Your task to perform on an android device: turn on bluetooth scan Image 0: 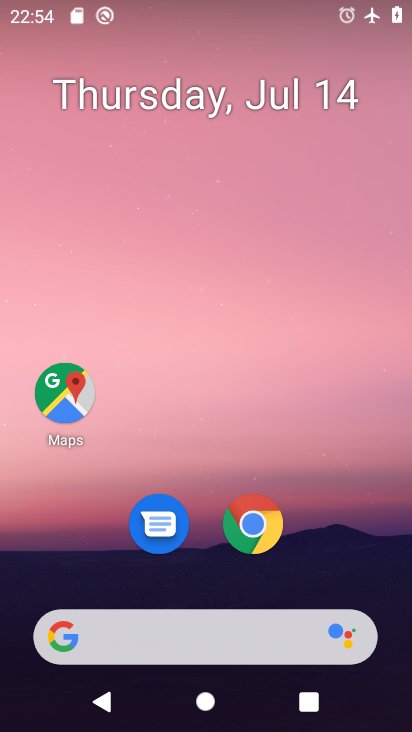
Step 0: drag from (321, 539) to (315, 22)
Your task to perform on an android device: turn on bluetooth scan Image 1: 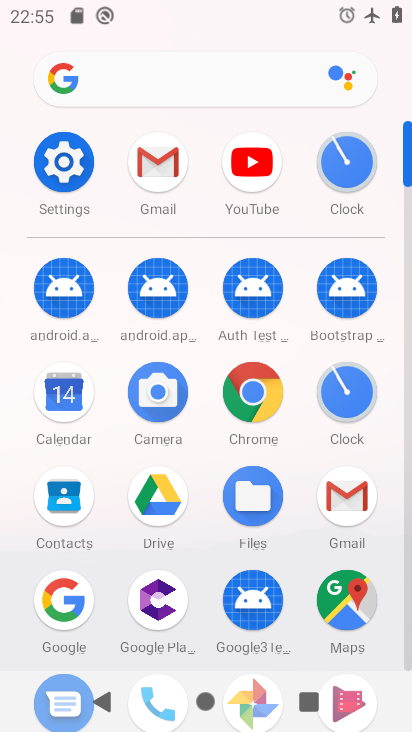
Step 1: click (57, 153)
Your task to perform on an android device: turn on bluetooth scan Image 2: 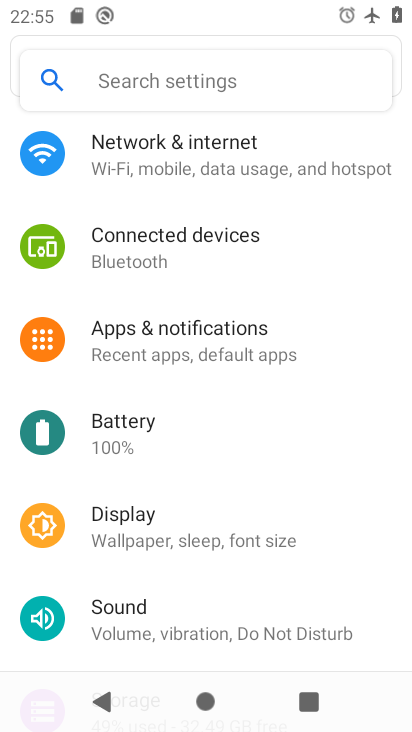
Step 2: drag from (250, 459) to (295, 87)
Your task to perform on an android device: turn on bluetooth scan Image 3: 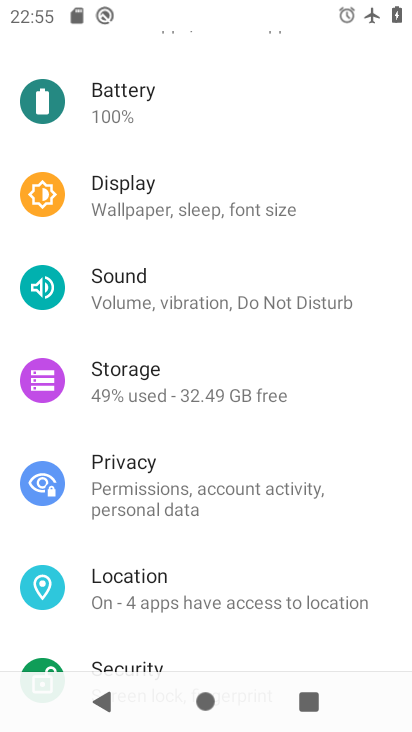
Step 3: click (237, 586)
Your task to perform on an android device: turn on bluetooth scan Image 4: 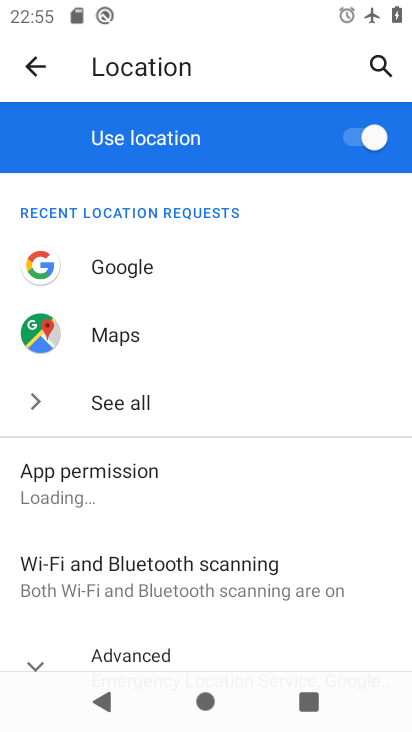
Step 4: click (244, 571)
Your task to perform on an android device: turn on bluetooth scan Image 5: 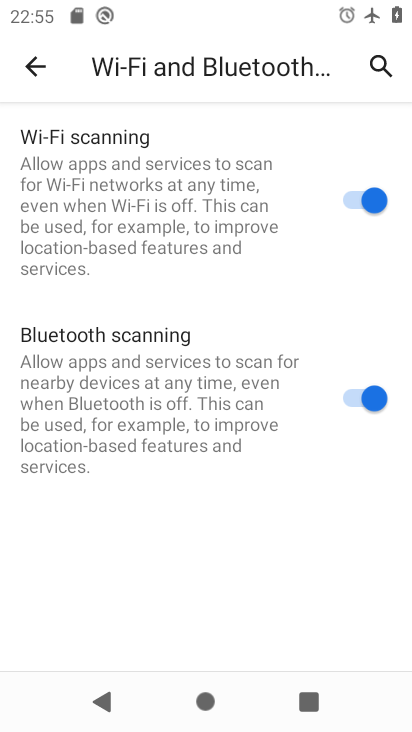
Step 5: task complete